Your task to perform on an android device: change keyboard looks Image 0: 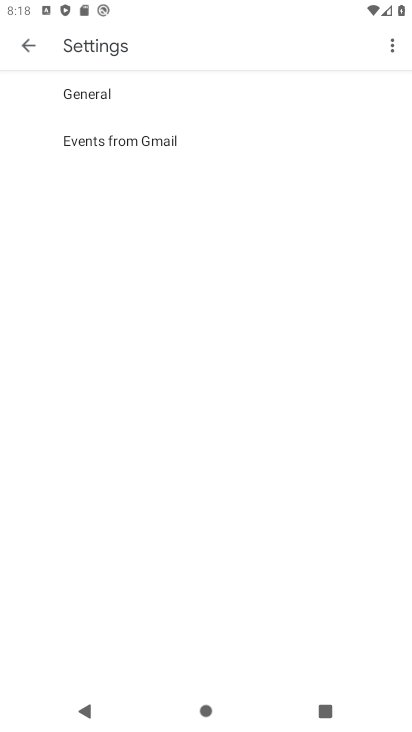
Step 0: press home button
Your task to perform on an android device: change keyboard looks Image 1: 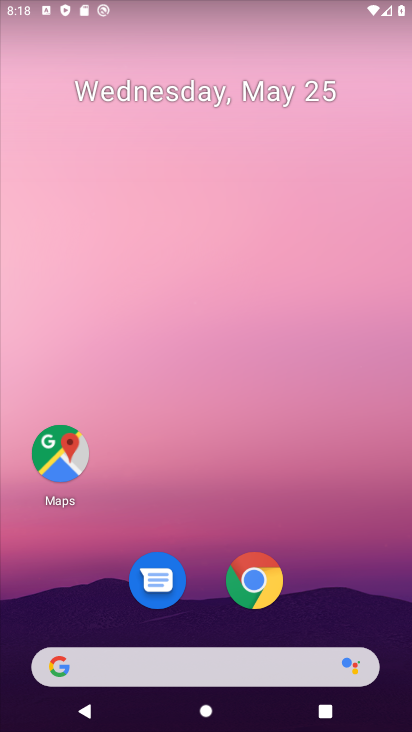
Step 1: drag from (10, 594) to (237, 135)
Your task to perform on an android device: change keyboard looks Image 2: 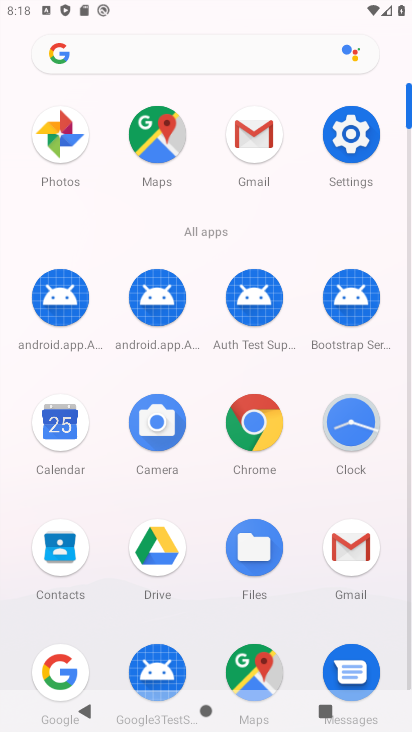
Step 2: click (329, 133)
Your task to perform on an android device: change keyboard looks Image 3: 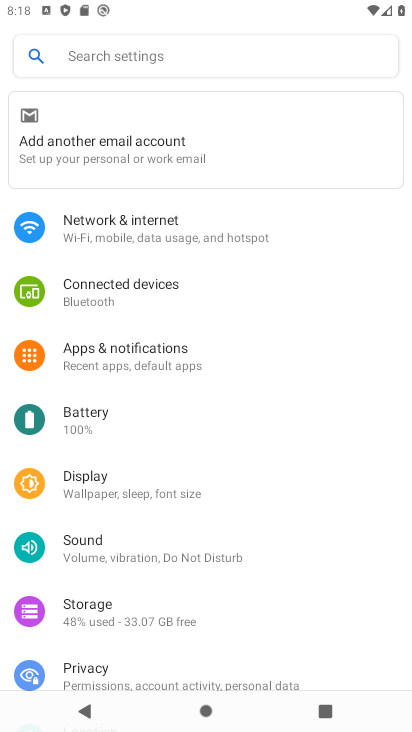
Step 3: drag from (18, 497) to (237, 192)
Your task to perform on an android device: change keyboard looks Image 4: 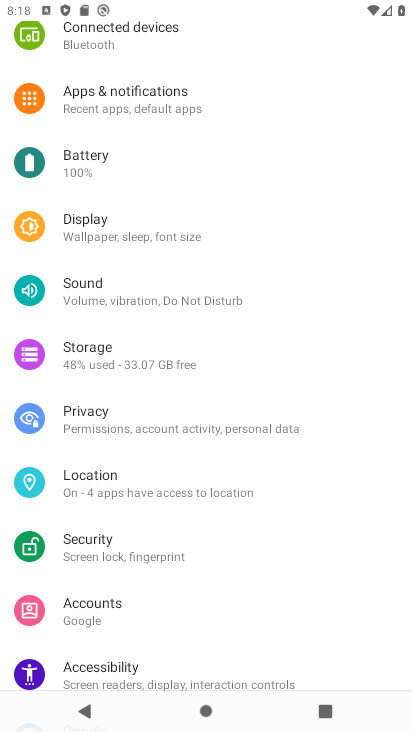
Step 4: drag from (5, 613) to (232, 210)
Your task to perform on an android device: change keyboard looks Image 5: 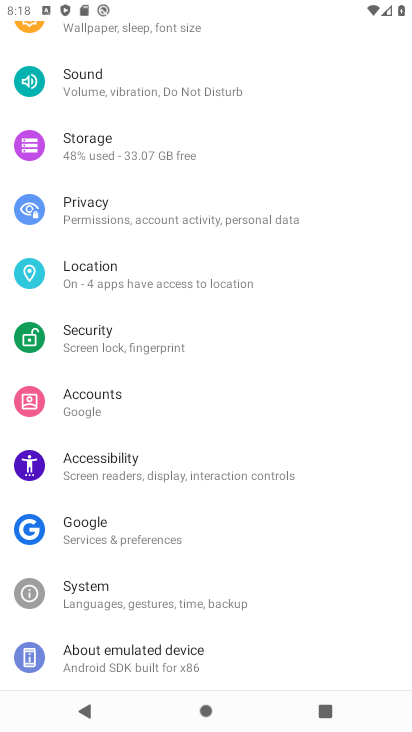
Step 5: click (152, 612)
Your task to perform on an android device: change keyboard looks Image 6: 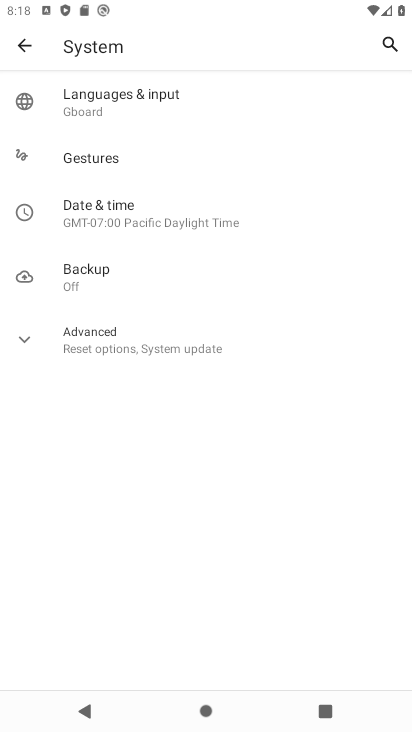
Step 6: click (219, 102)
Your task to perform on an android device: change keyboard looks Image 7: 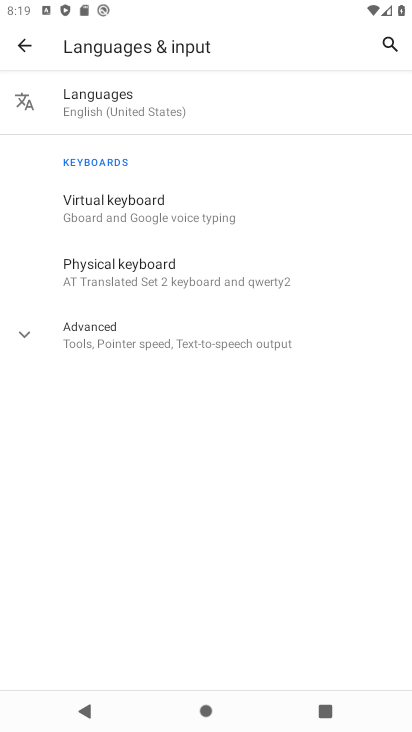
Step 7: click (223, 199)
Your task to perform on an android device: change keyboard looks Image 8: 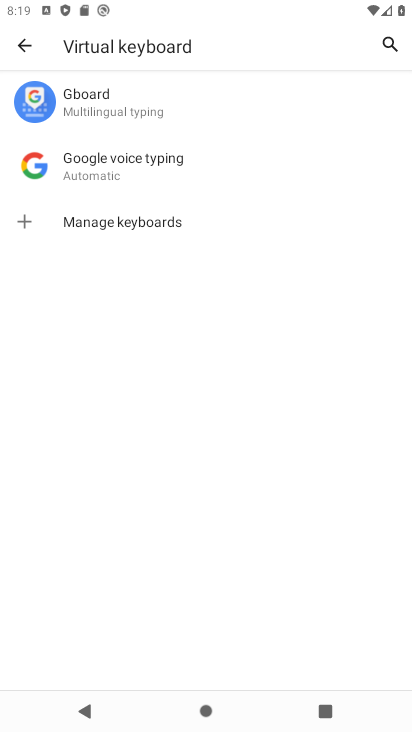
Step 8: click (241, 104)
Your task to perform on an android device: change keyboard looks Image 9: 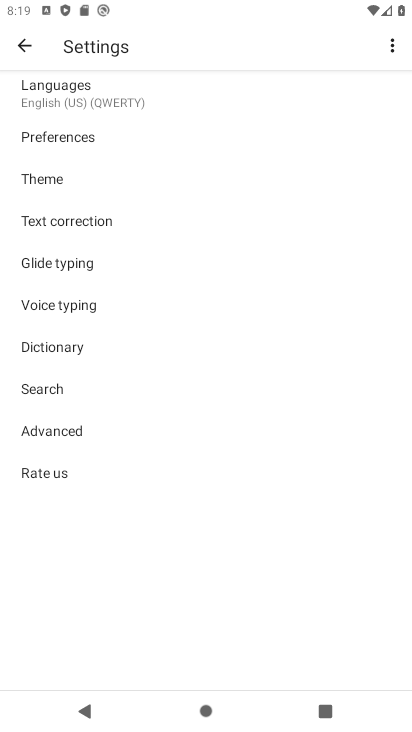
Step 9: task complete